Your task to perform on an android device: Open settings Image 0: 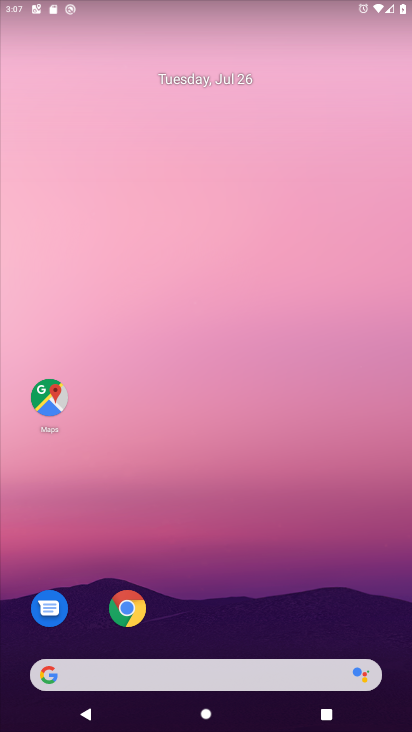
Step 0: drag from (275, 584) to (235, 114)
Your task to perform on an android device: Open settings Image 1: 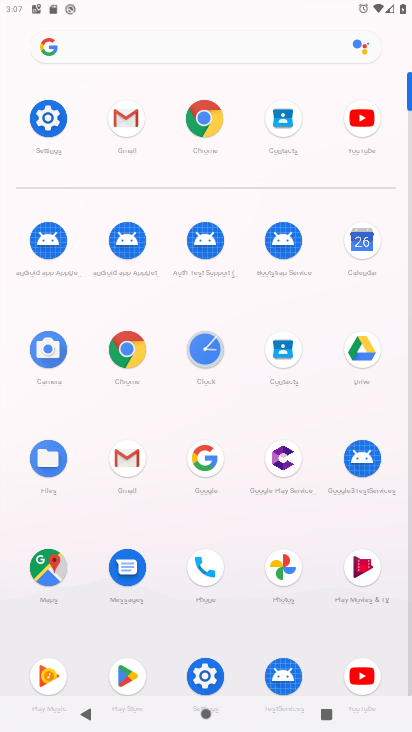
Step 1: click (50, 122)
Your task to perform on an android device: Open settings Image 2: 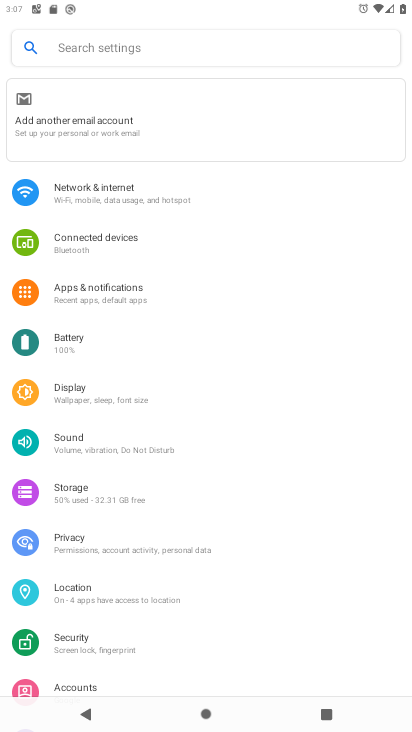
Step 2: task complete